Your task to perform on an android device: What's the weather going to be tomorrow? Image 0: 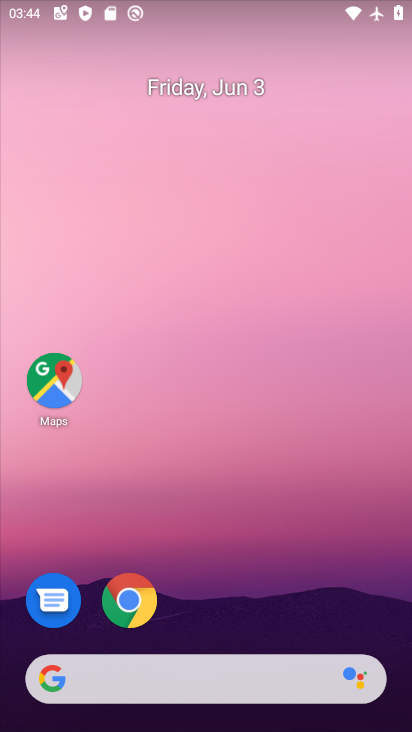
Step 0: click (220, 674)
Your task to perform on an android device: What's the weather going to be tomorrow? Image 1: 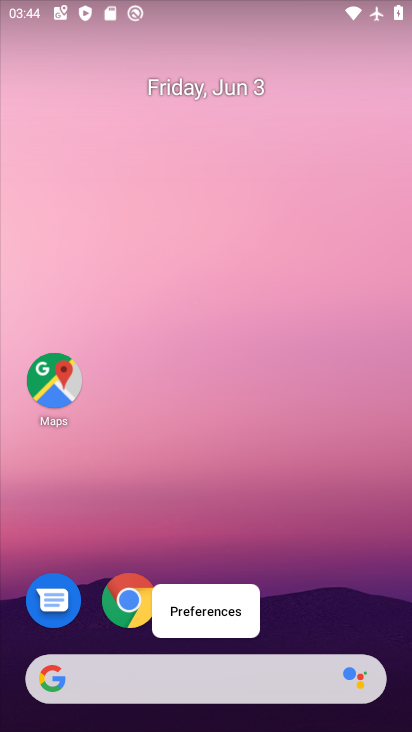
Step 1: click (205, 688)
Your task to perform on an android device: What's the weather going to be tomorrow? Image 2: 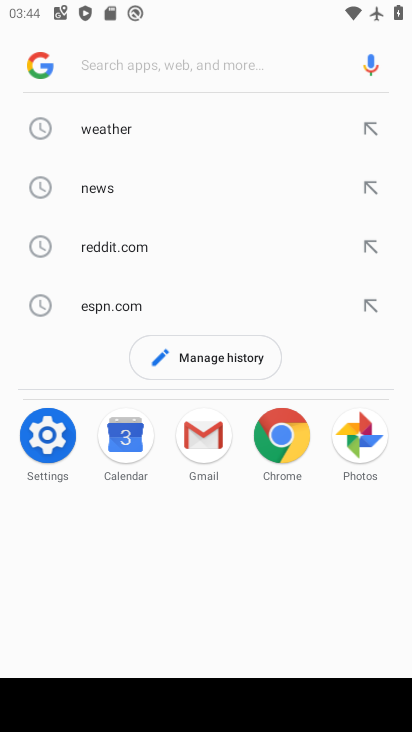
Step 2: click (111, 126)
Your task to perform on an android device: What's the weather going to be tomorrow? Image 3: 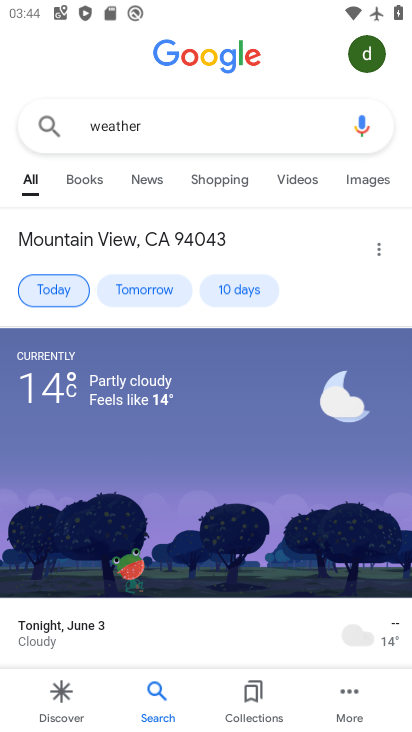
Step 3: drag from (288, 482) to (313, 374)
Your task to perform on an android device: What's the weather going to be tomorrow? Image 4: 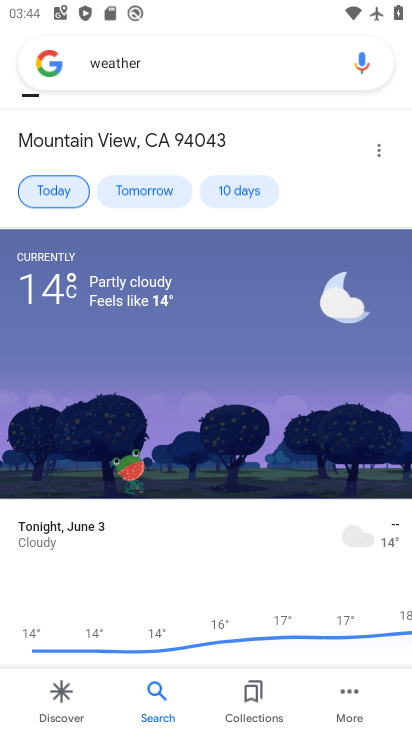
Step 4: click (138, 194)
Your task to perform on an android device: What's the weather going to be tomorrow? Image 5: 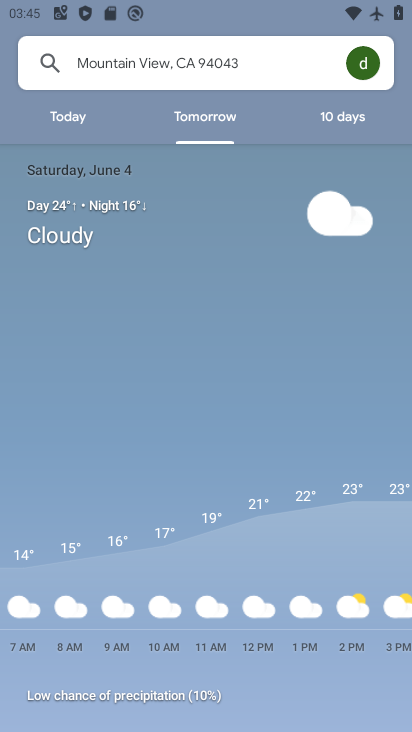
Step 5: task complete